Your task to perform on an android device: What's on my calendar today? Image 0: 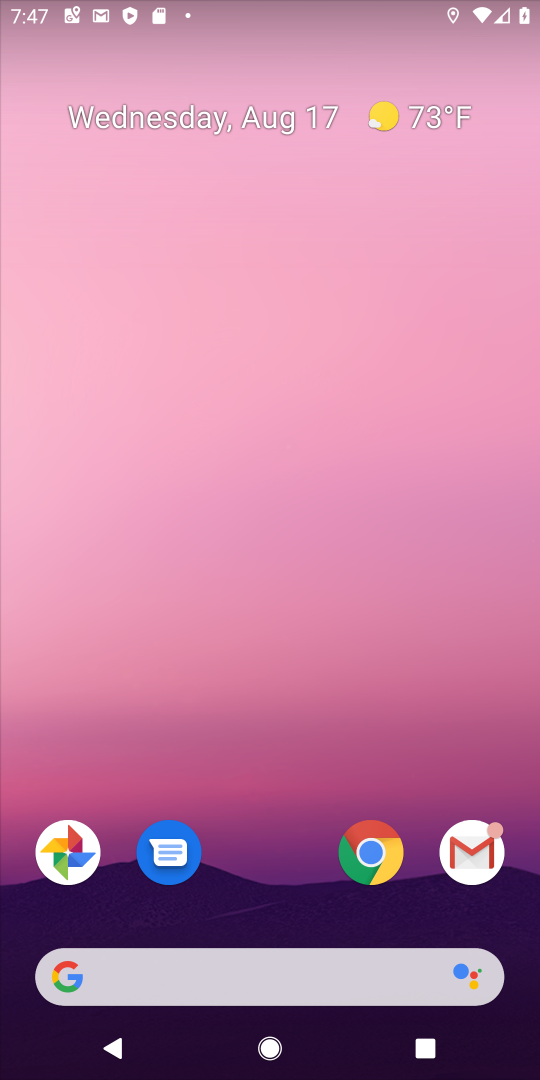
Step 0: press home button
Your task to perform on an android device: What's on my calendar today? Image 1: 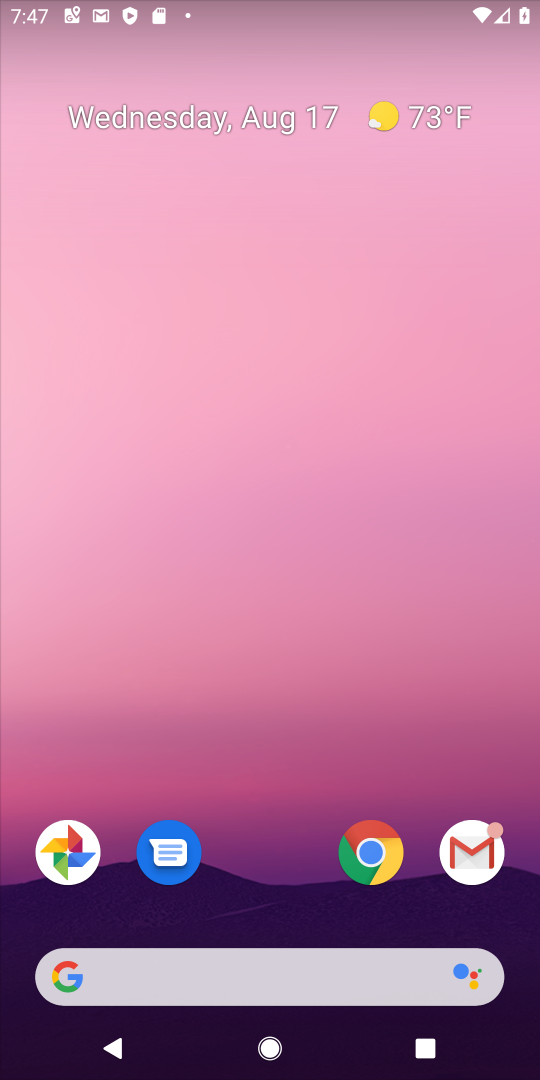
Step 1: drag from (255, 906) to (234, 159)
Your task to perform on an android device: What's on my calendar today? Image 2: 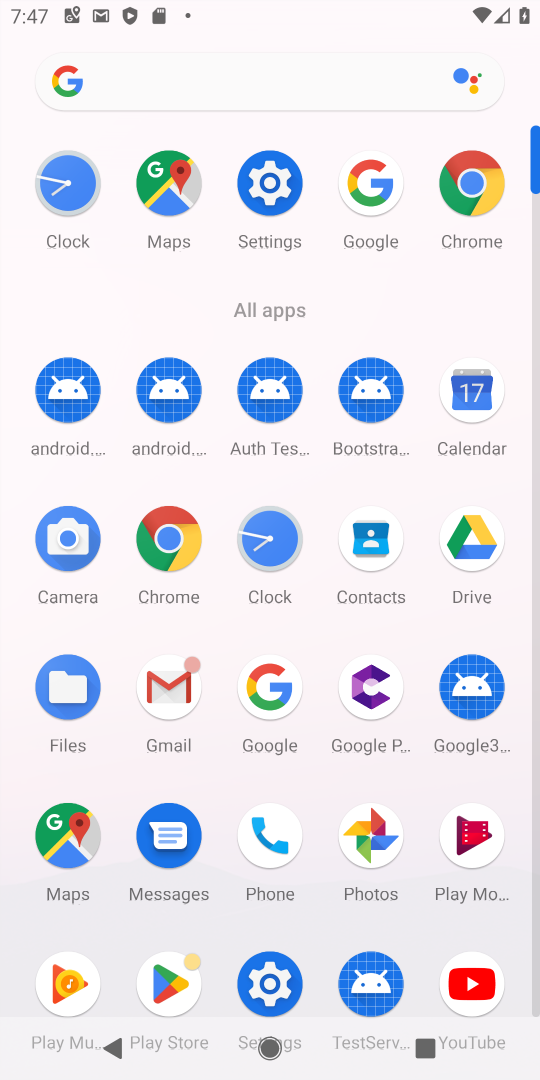
Step 2: click (472, 394)
Your task to perform on an android device: What's on my calendar today? Image 3: 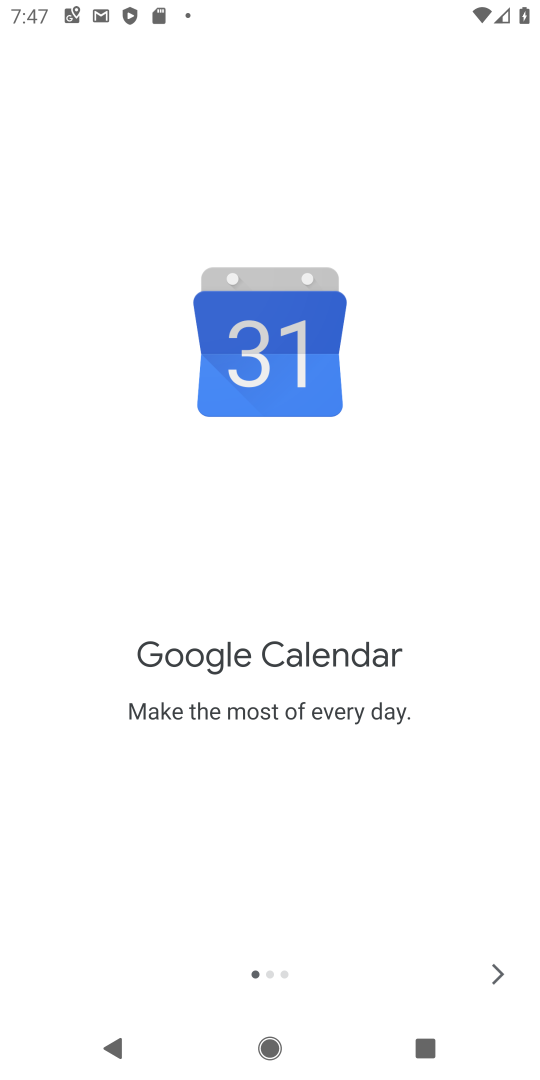
Step 3: click (499, 967)
Your task to perform on an android device: What's on my calendar today? Image 4: 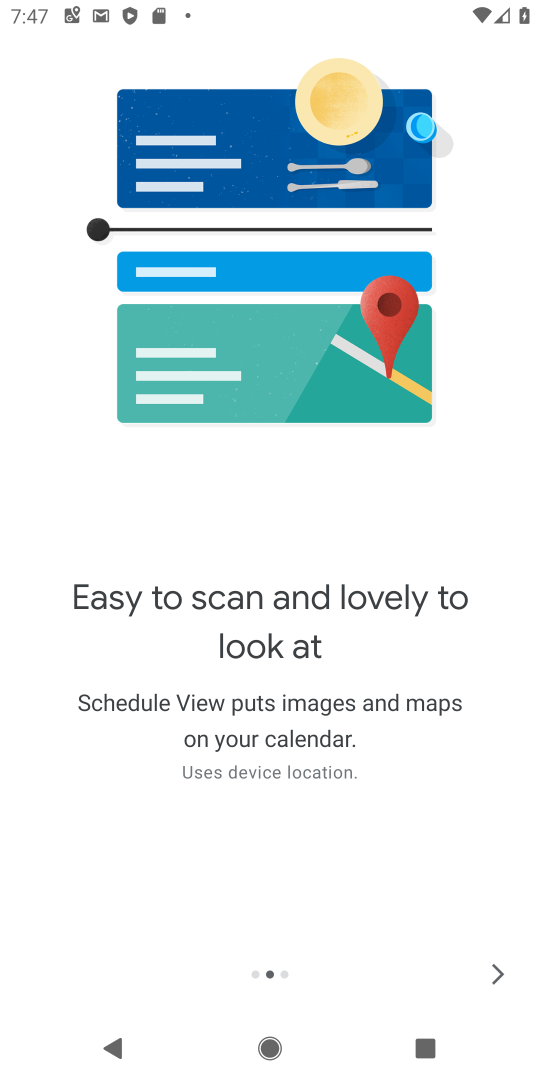
Step 4: click (488, 972)
Your task to perform on an android device: What's on my calendar today? Image 5: 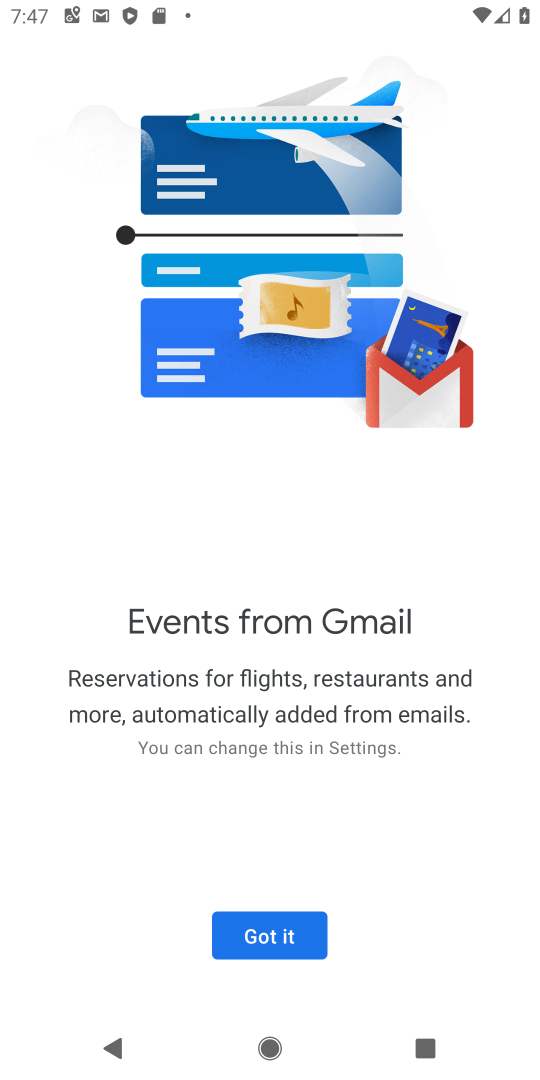
Step 5: click (291, 936)
Your task to perform on an android device: What's on my calendar today? Image 6: 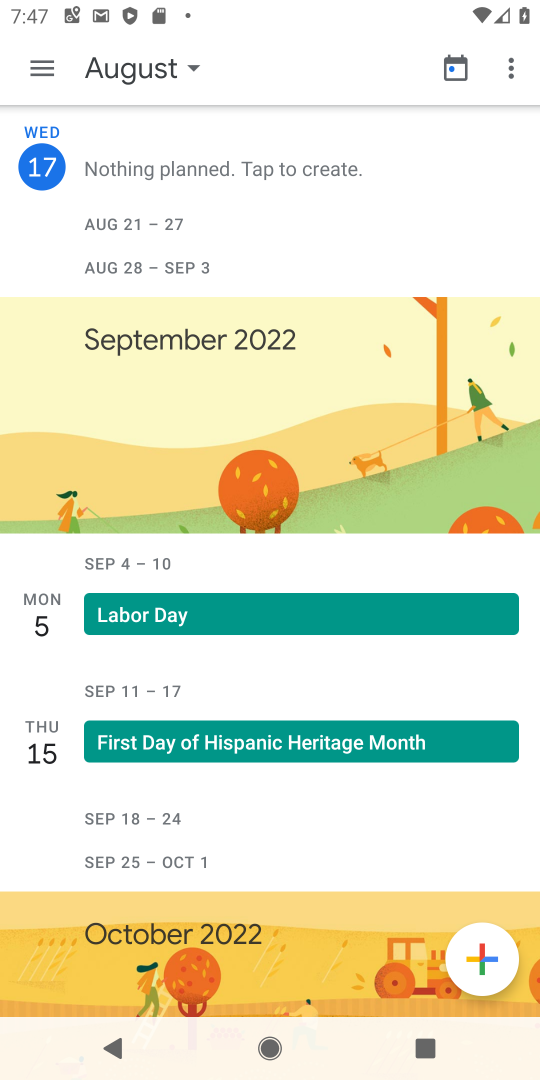
Step 6: click (40, 60)
Your task to perform on an android device: What's on my calendar today? Image 7: 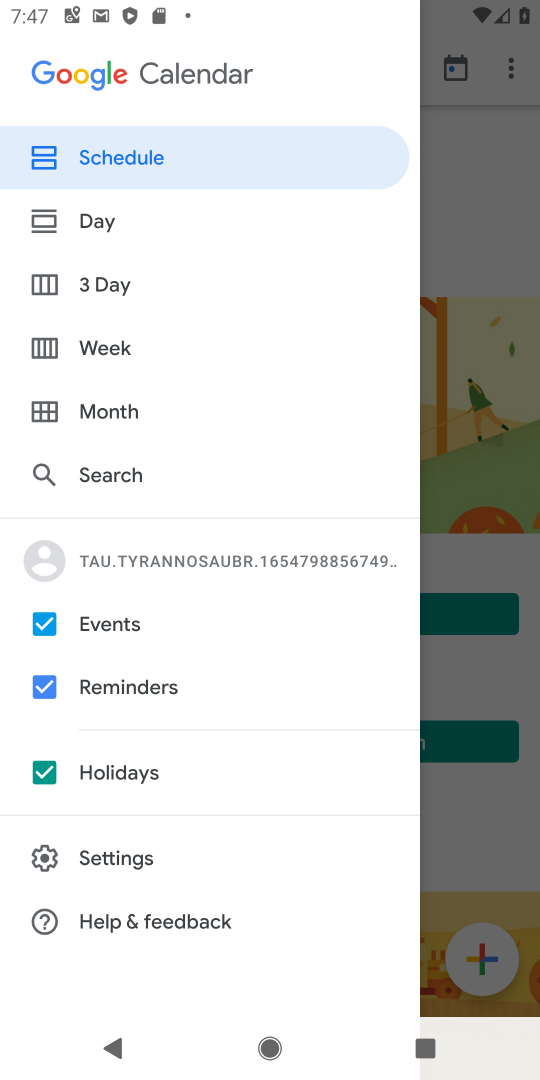
Step 7: click (86, 209)
Your task to perform on an android device: What's on my calendar today? Image 8: 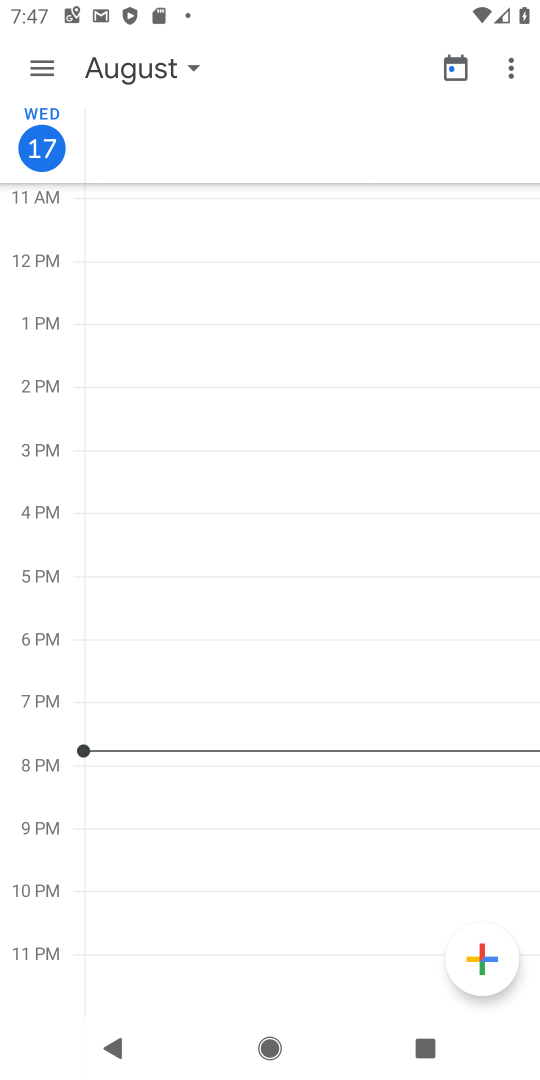
Step 8: click (188, 59)
Your task to perform on an android device: What's on my calendar today? Image 9: 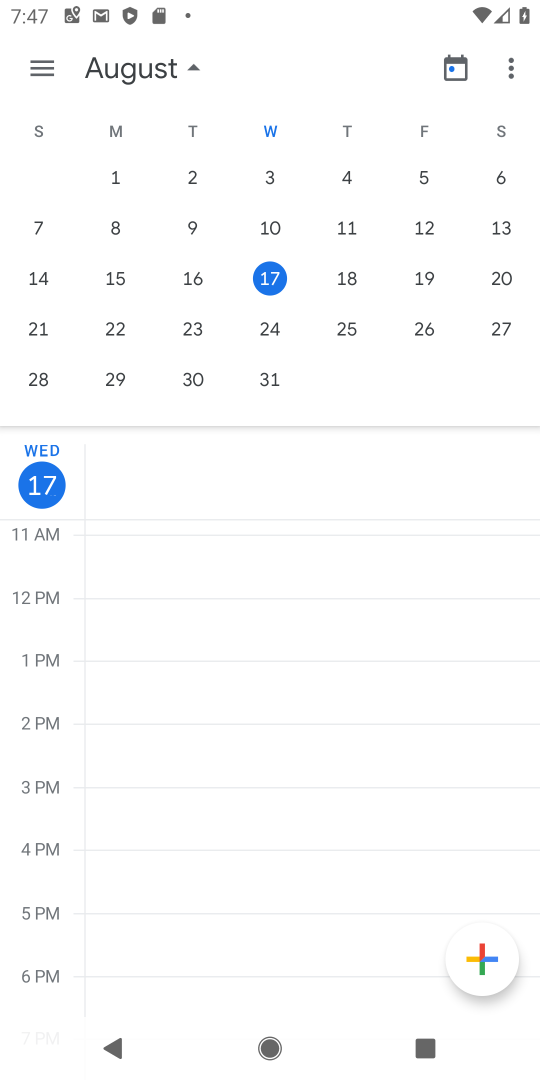
Step 9: click (355, 272)
Your task to perform on an android device: What's on my calendar today? Image 10: 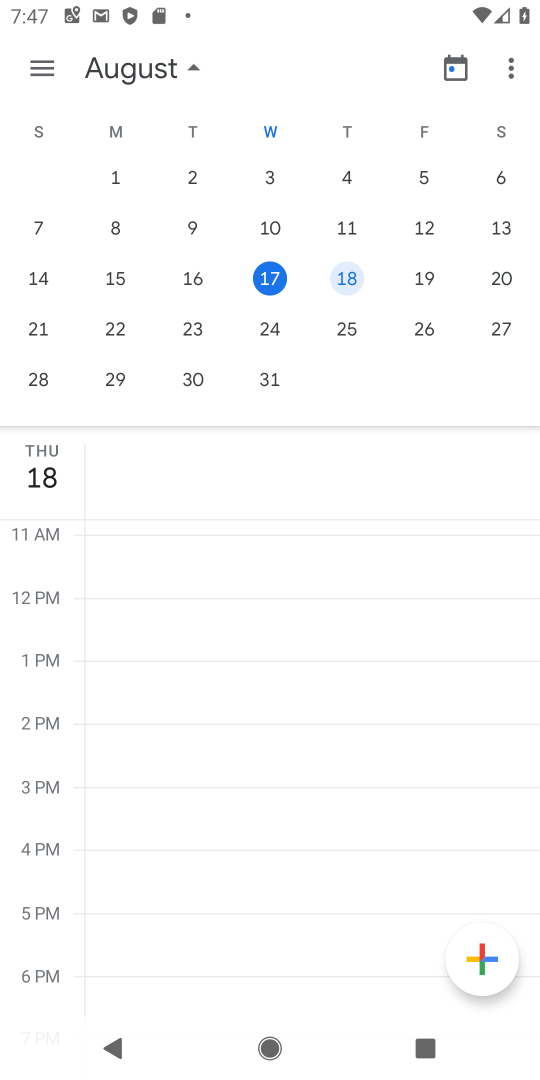
Step 10: task complete